Your task to perform on an android device: all mails in gmail Image 0: 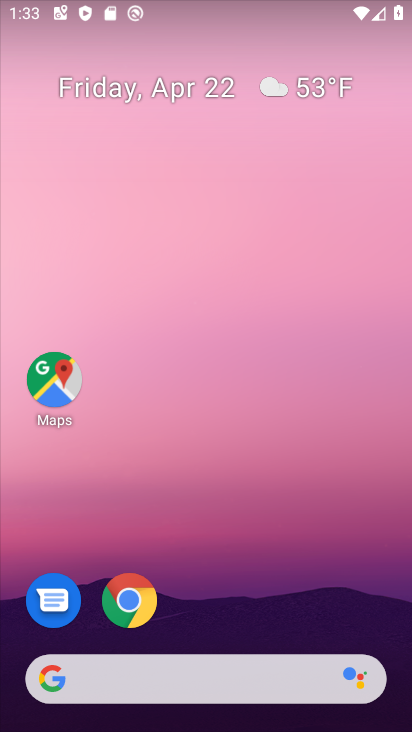
Step 0: drag from (215, 689) to (220, 81)
Your task to perform on an android device: all mails in gmail Image 1: 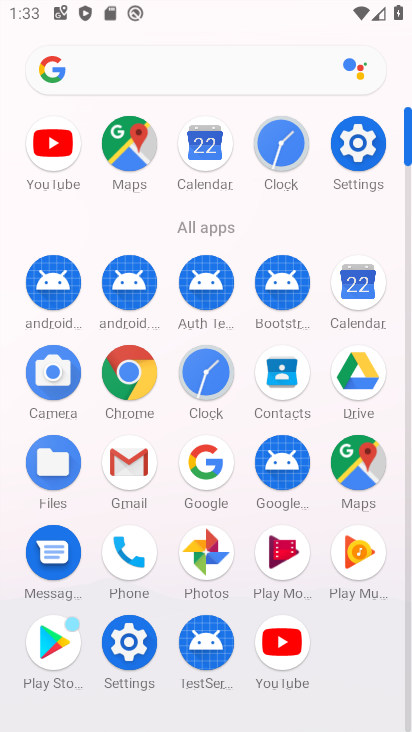
Step 1: click (130, 456)
Your task to perform on an android device: all mails in gmail Image 2: 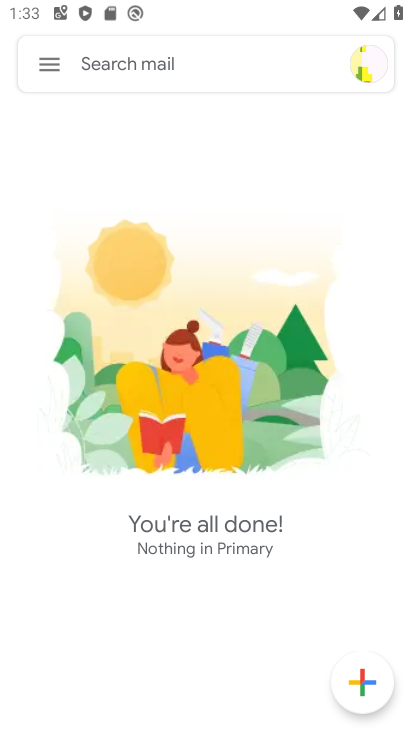
Step 2: click (51, 61)
Your task to perform on an android device: all mails in gmail Image 3: 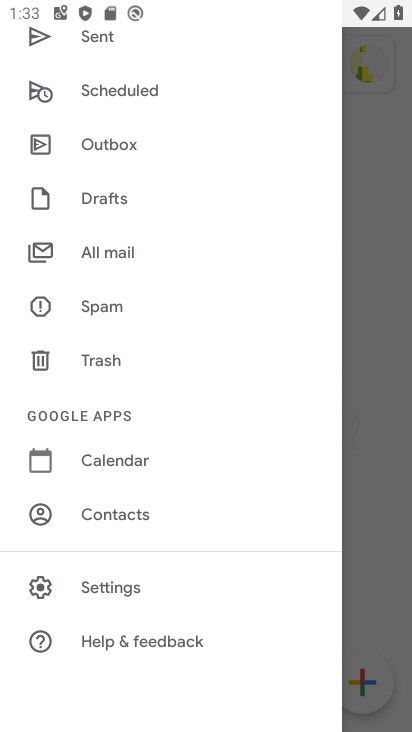
Step 3: click (105, 247)
Your task to perform on an android device: all mails in gmail Image 4: 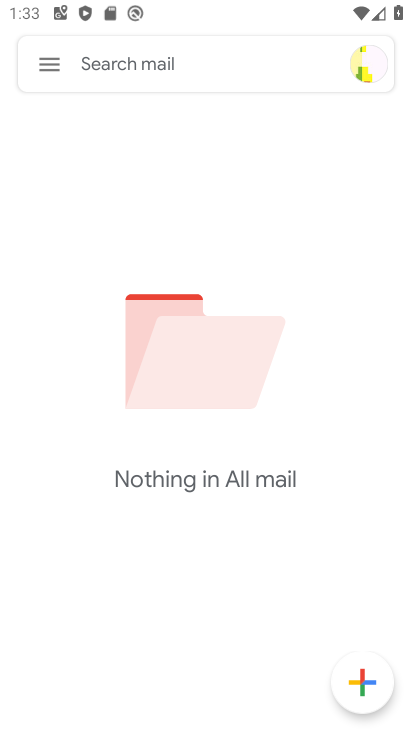
Step 4: task complete